Your task to perform on an android device: turn on airplane mode Image 0: 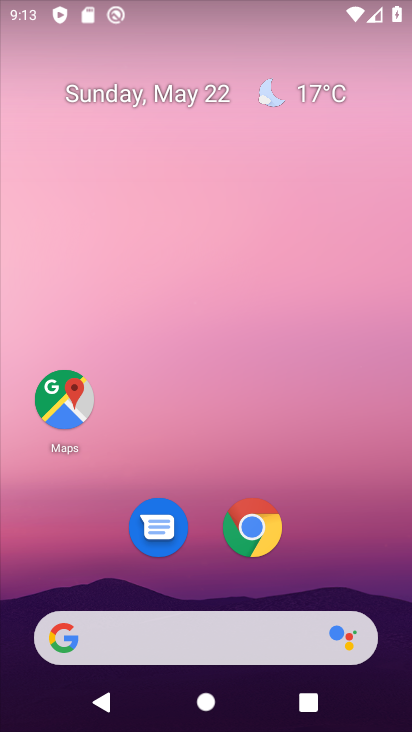
Step 0: drag from (329, 515) to (253, 8)
Your task to perform on an android device: turn on airplane mode Image 1: 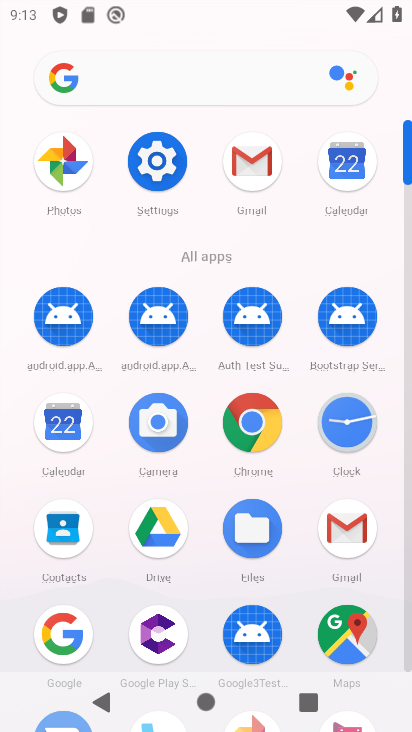
Step 1: click (160, 159)
Your task to perform on an android device: turn on airplane mode Image 2: 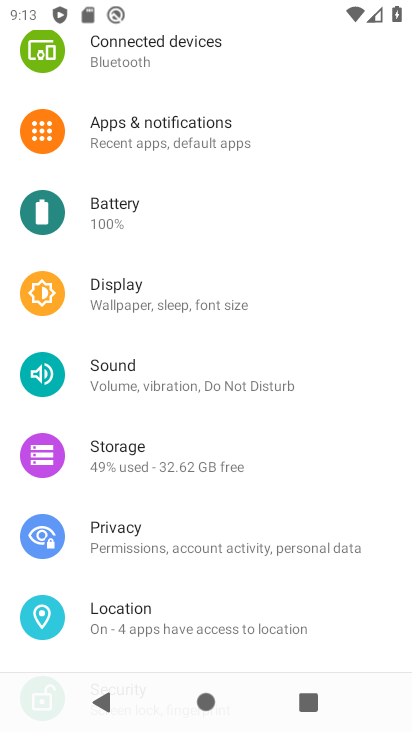
Step 2: drag from (245, 206) to (307, 676)
Your task to perform on an android device: turn on airplane mode Image 3: 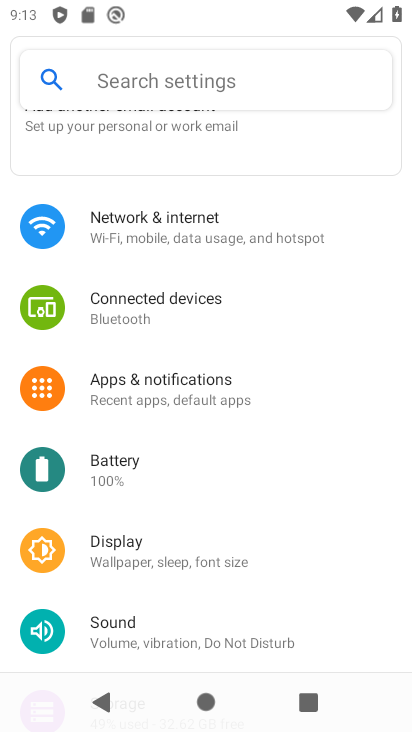
Step 3: click (136, 224)
Your task to perform on an android device: turn on airplane mode Image 4: 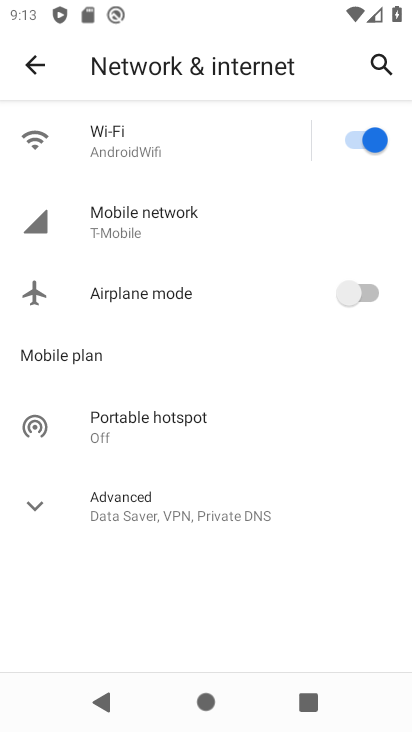
Step 4: click (348, 286)
Your task to perform on an android device: turn on airplane mode Image 5: 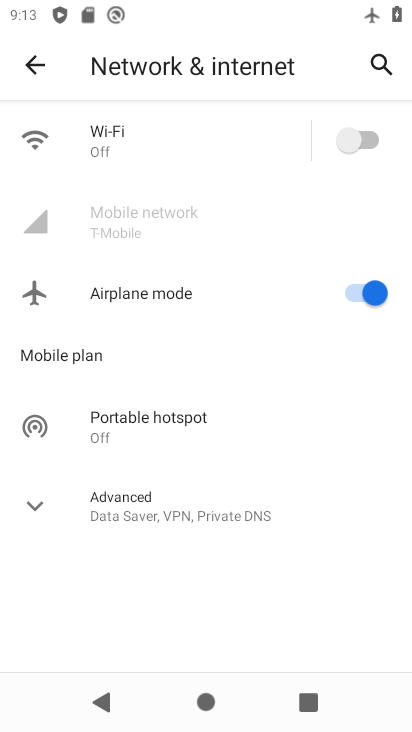
Step 5: task complete